Your task to perform on an android device: install app "Facebook Messenger" Image 0: 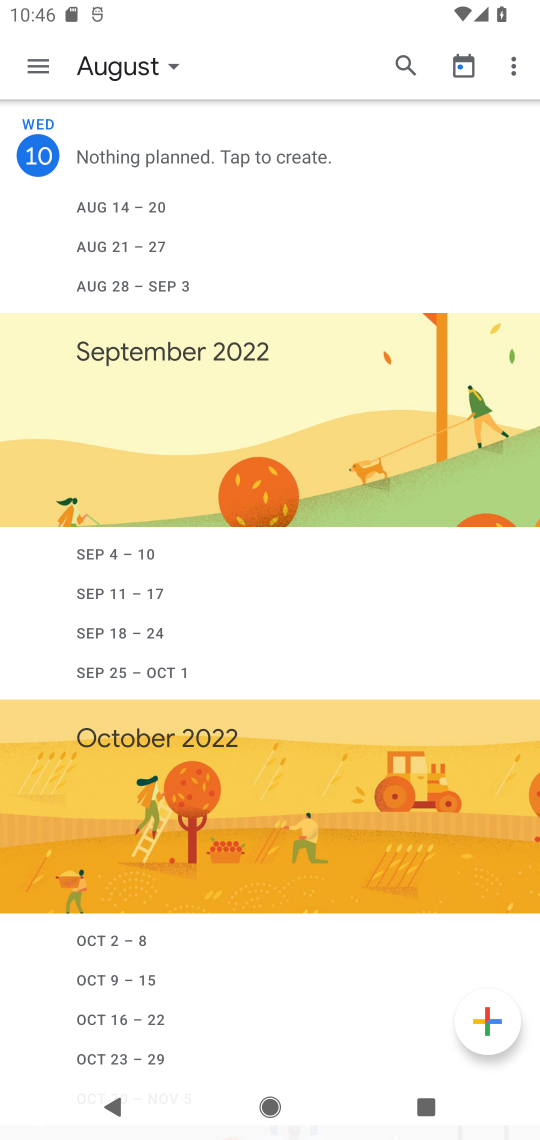
Step 0: press home button
Your task to perform on an android device: install app "Facebook Messenger" Image 1: 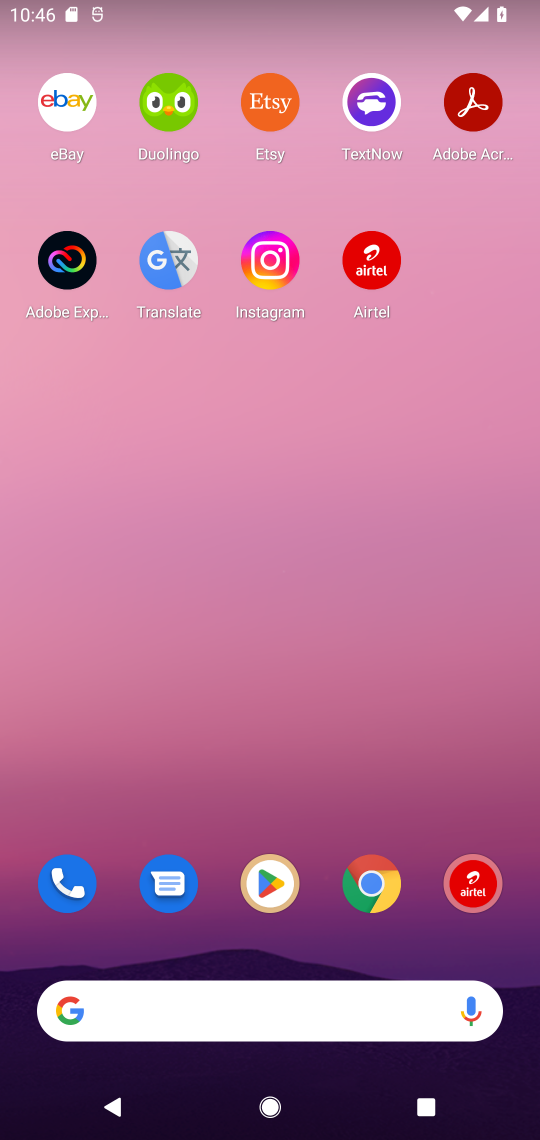
Step 1: drag from (319, 844) to (300, 218)
Your task to perform on an android device: install app "Facebook Messenger" Image 2: 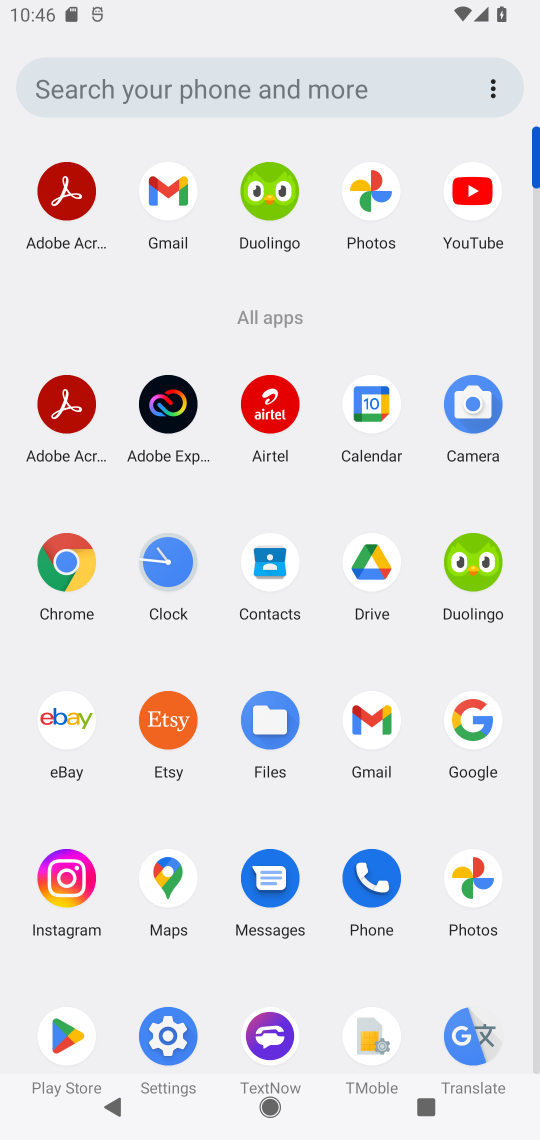
Step 2: drag from (331, 936) to (311, 346)
Your task to perform on an android device: install app "Facebook Messenger" Image 3: 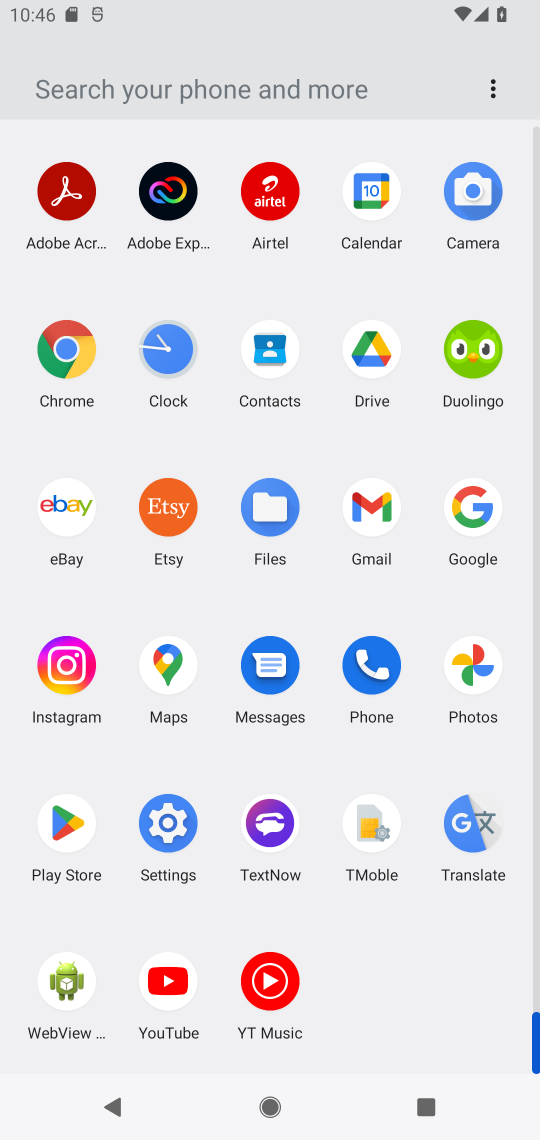
Step 3: drag from (297, 298) to (307, 825)
Your task to perform on an android device: install app "Facebook Messenger" Image 4: 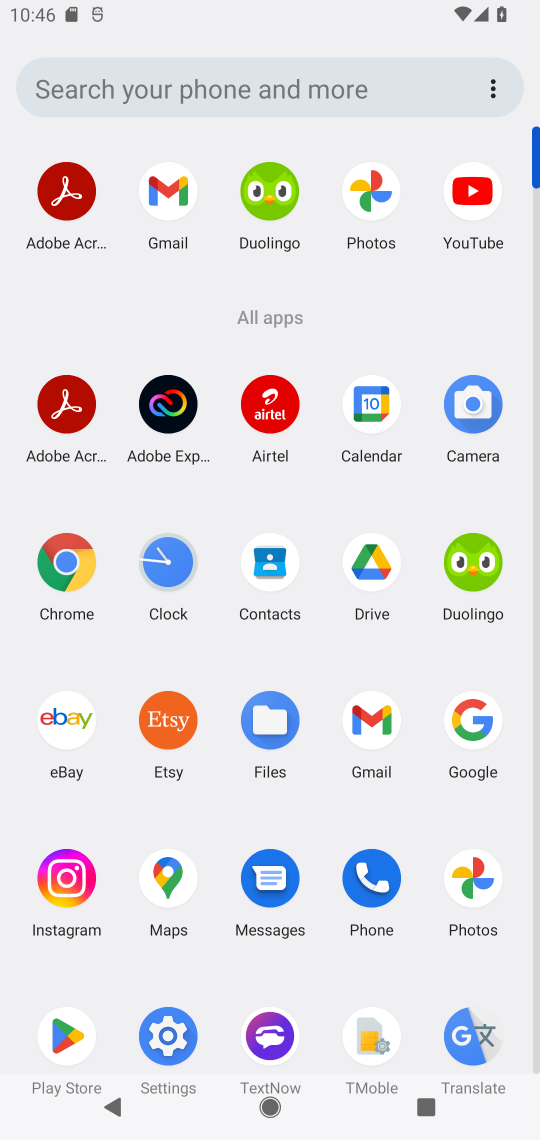
Step 4: press home button
Your task to perform on an android device: install app "Facebook Messenger" Image 5: 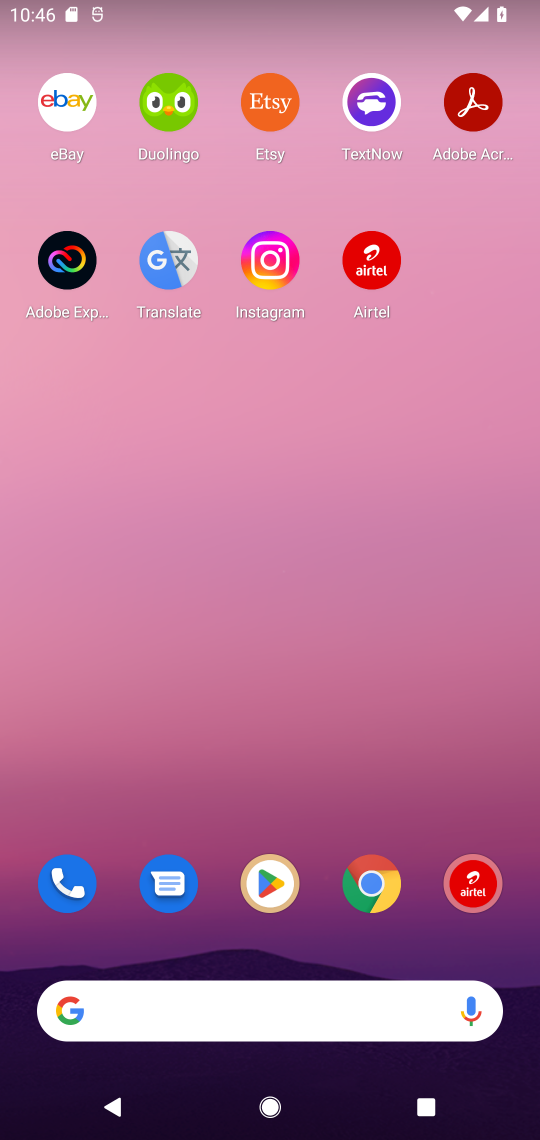
Step 5: drag from (135, 479) to (415, 480)
Your task to perform on an android device: install app "Facebook Messenger" Image 6: 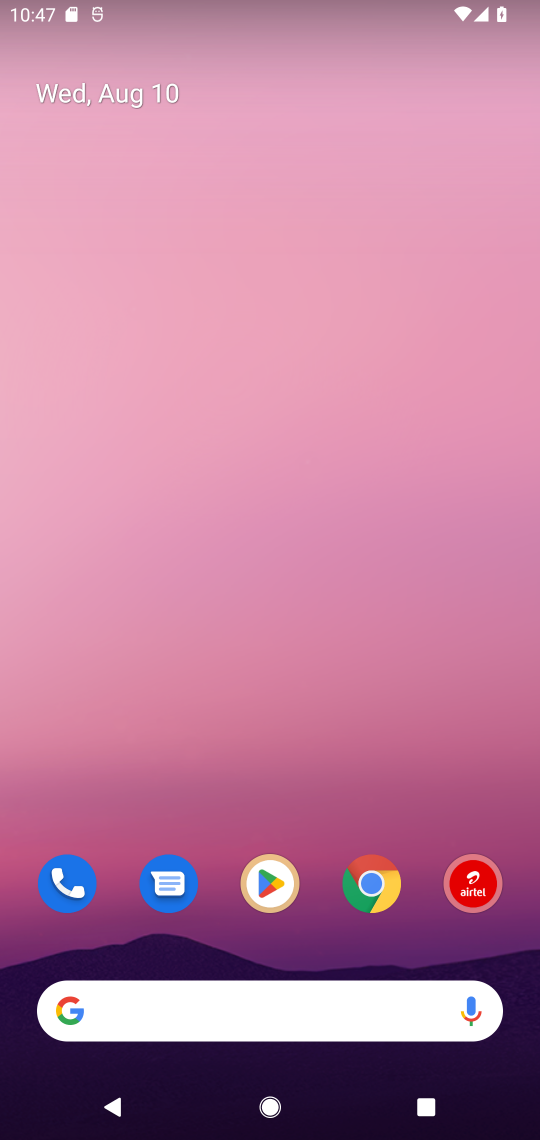
Step 6: drag from (406, 624) to (24, 604)
Your task to perform on an android device: install app "Facebook Messenger" Image 7: 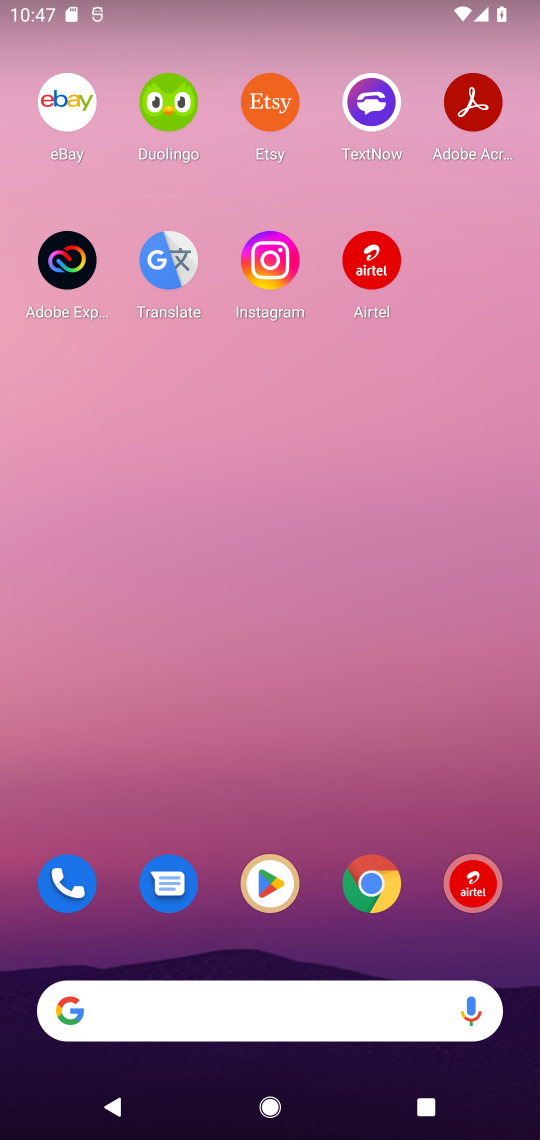
Step 7: click (264, 886)
Your task to perform on an android device: install app "Facebook Messenger" Image 8: 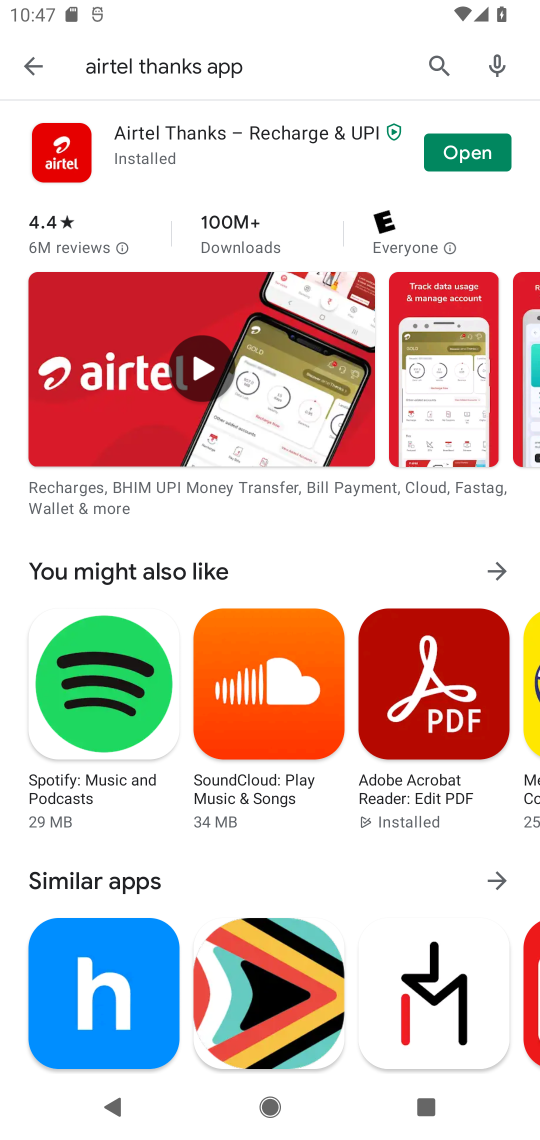
Step 8: click (440, 56)
Your task to perform on an android device: install app "Facebook Messenger" Image 9: 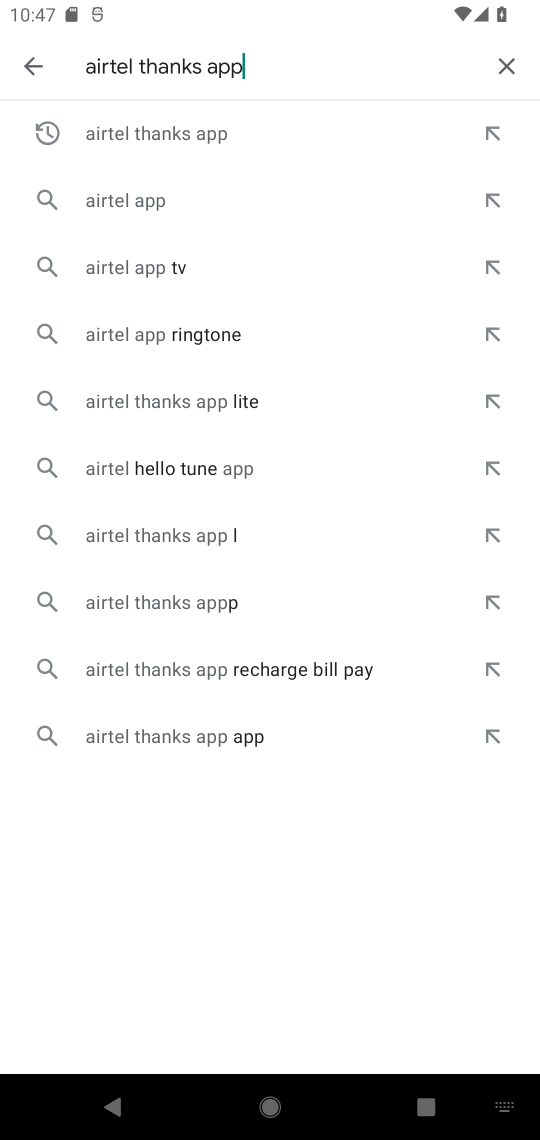
Step 9: click (501, 51)
Your task to perform on an android device: install app "Facebook Messenger" Image 10: 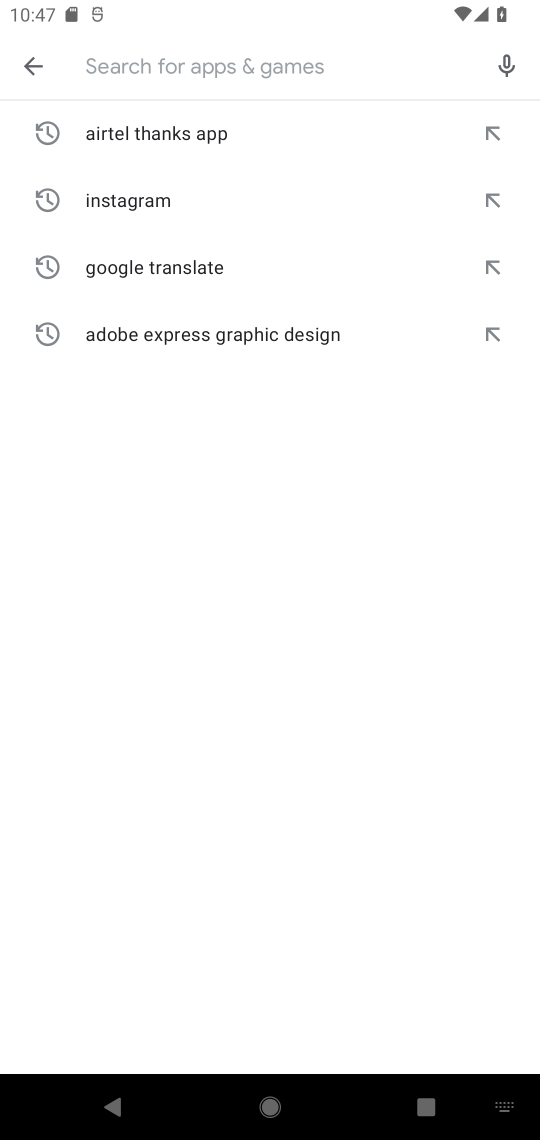
Step 10: type "Facebook messenger"
Your task to perform on an android device: install app "Facebook Messenger" Image 11: 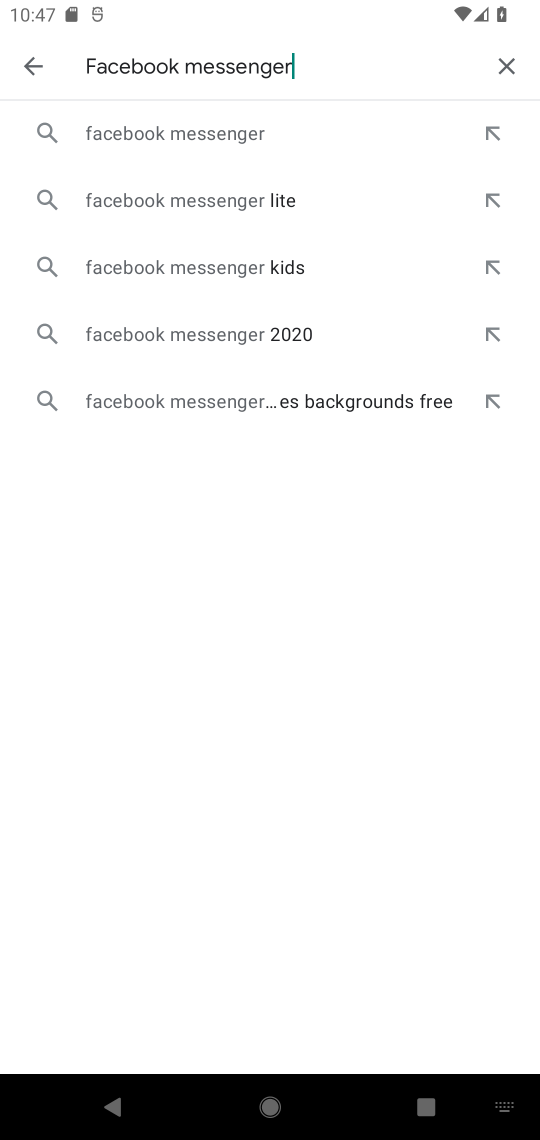
Step 11: click (192, 139)
Your task to perform on an android device: install app "Facebook Messenger" Image 12: 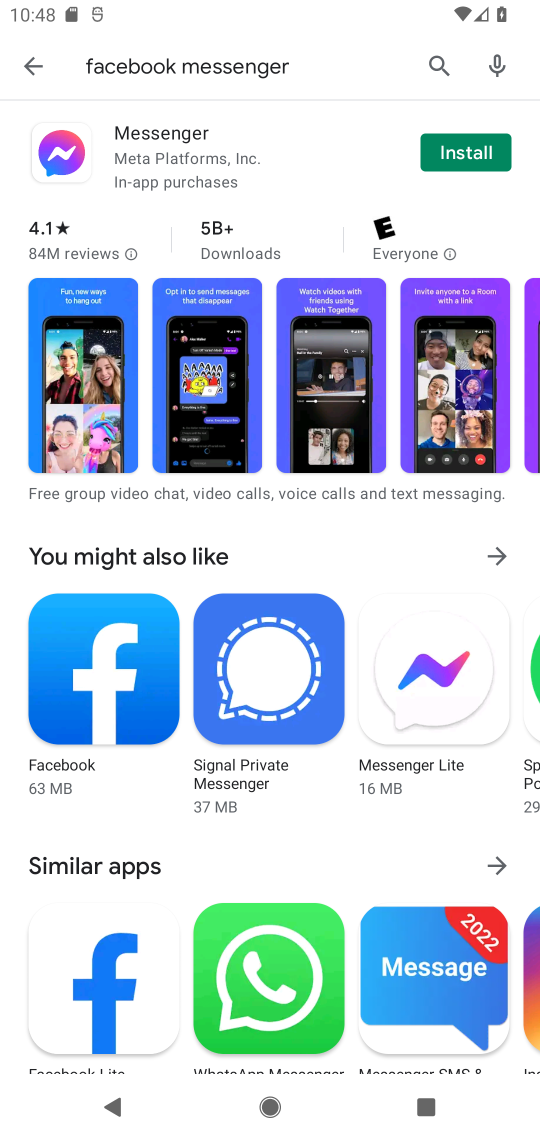
Step 12: click (470, 151)
Your task to perform on an android device: install app "Facebook Messenger" Image 13: 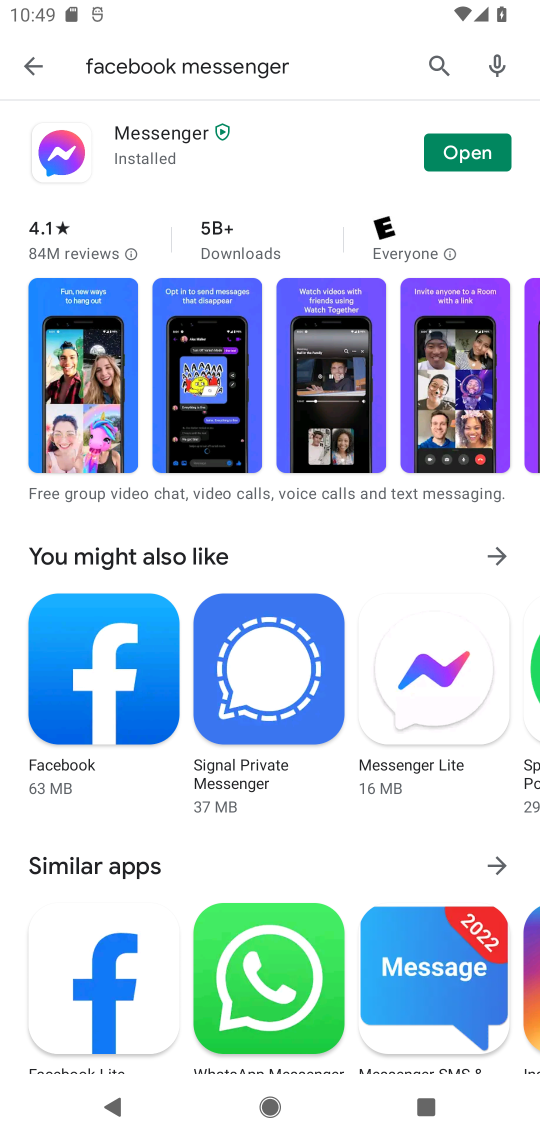
Step 13: task complete